Your task to perform on an android device: Open calendar and show me the second week of next month Image 0: 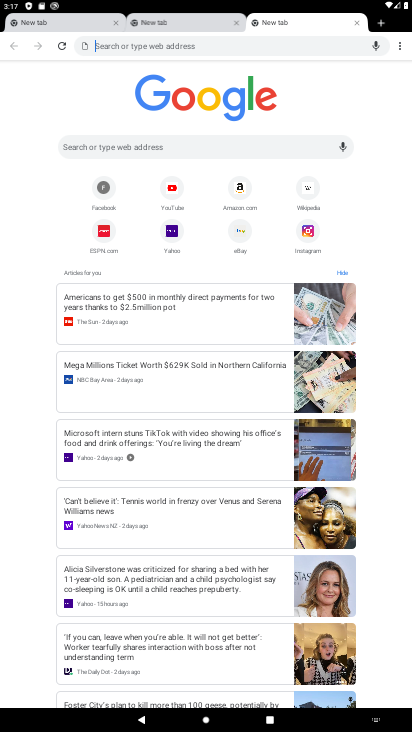
Step 0: press home button
Your task to perform on an android device: Open calendar and show me the second week of next month Image 1: 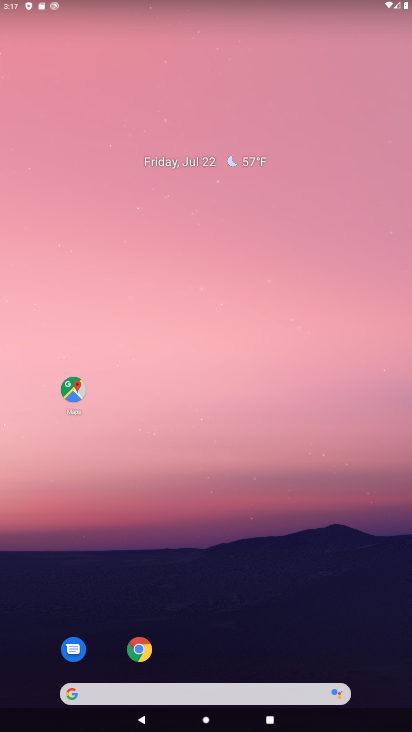
Step 1: click (274, 64)
Your task to perform on an android device: Open calendar and show me the second week of next month Image 2: 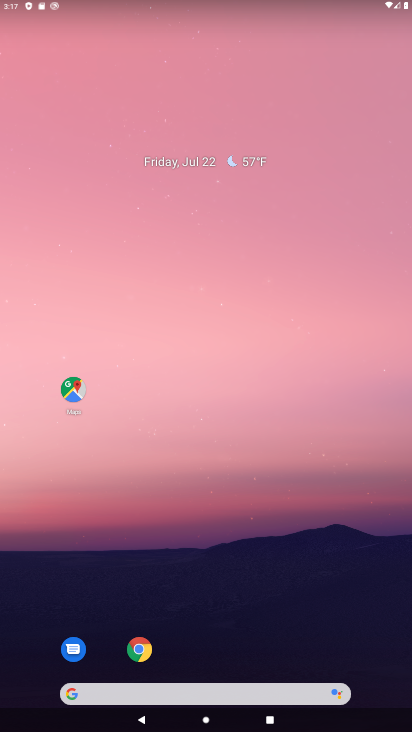
Step 2: drag from (39, 694) to (203, 115)
Your task to perform on an android device: Open calendar and show me the second week of next month Image 3: 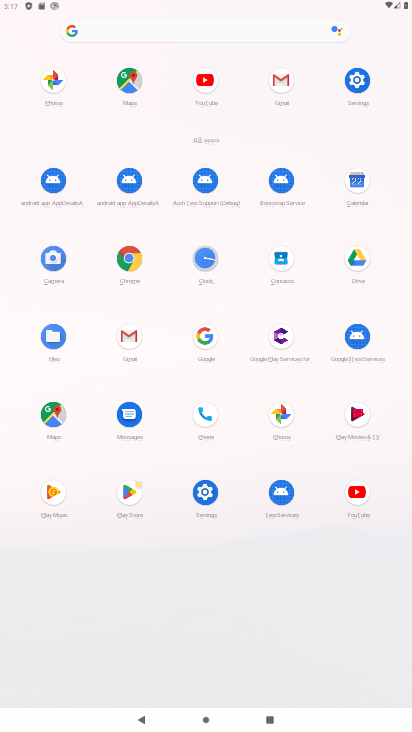
Step 3: click (358, 184)
Your task to perform on an android device: Open calendar and show me the second week of next month Image 4: 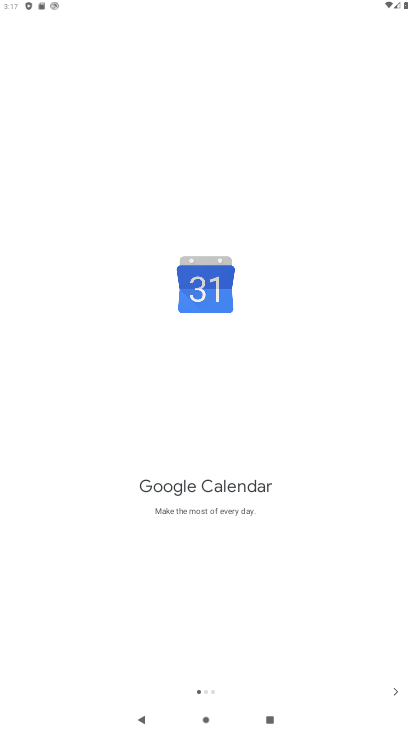
Step 4: click (396, 690)
Your task to perform on an android device: Open calendar and show me the second week of next month Image 5: 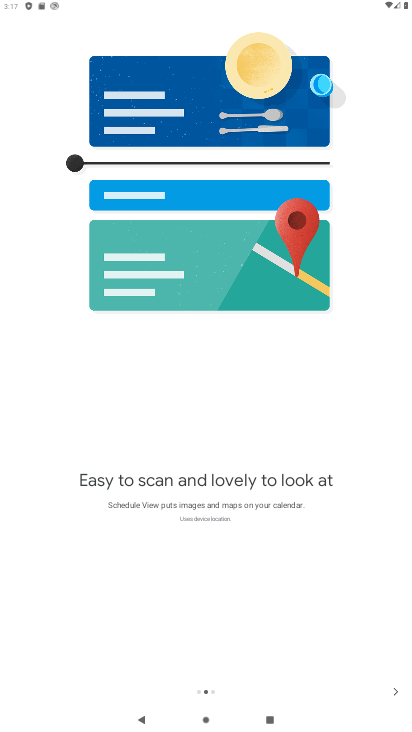
Step 5: click (388, 685)
Your task to perform on an android device: Open calendar and show me the second week of next month Image 6: 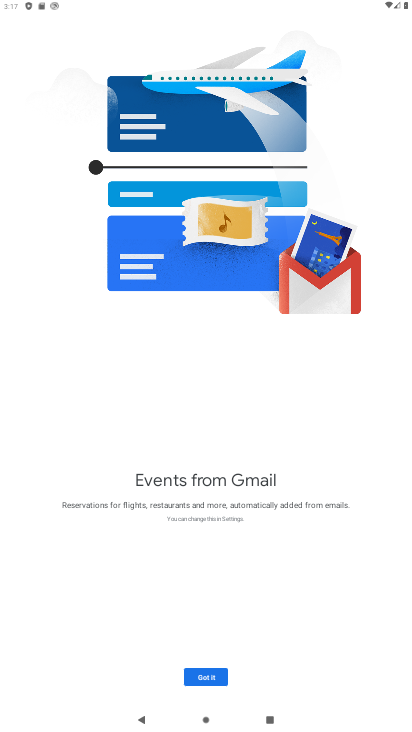
Step 6: click (189, 676)
Your task to perform on an android device: Open calendar and show me the second week of next month Image 7: 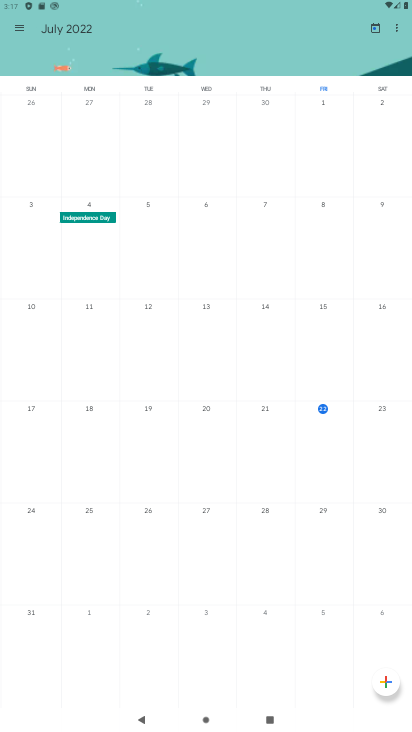
Step 7: drag from (25, 320) to (9, 378)
Your task to perform on an android device: Open calendar and show me the second week of next month Image 8: 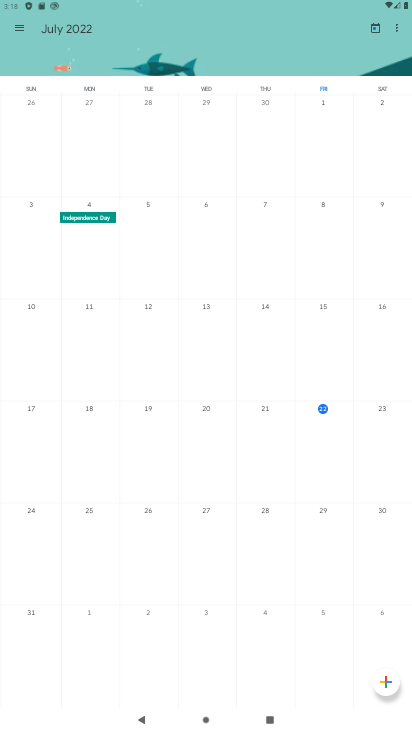
Step 8: drag from (0, 265) to (0, 405)
Your task to perform on an android device: Open calendar and show me the second week of next month Image 9: 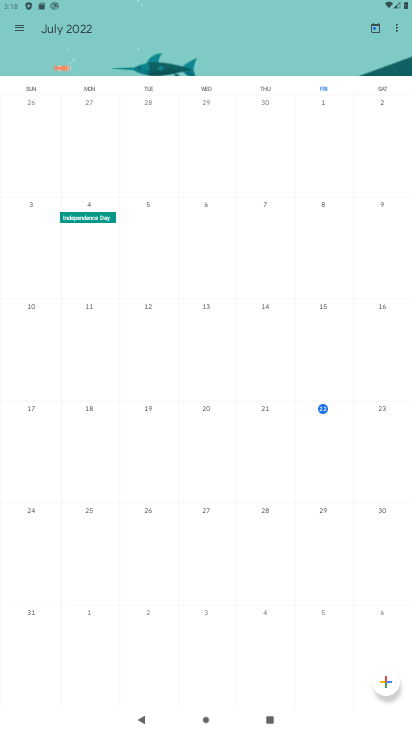
Step 9: click (8, 271)
Your task to perform on an android device: Open calendar and show me the second week of next month Image 10: 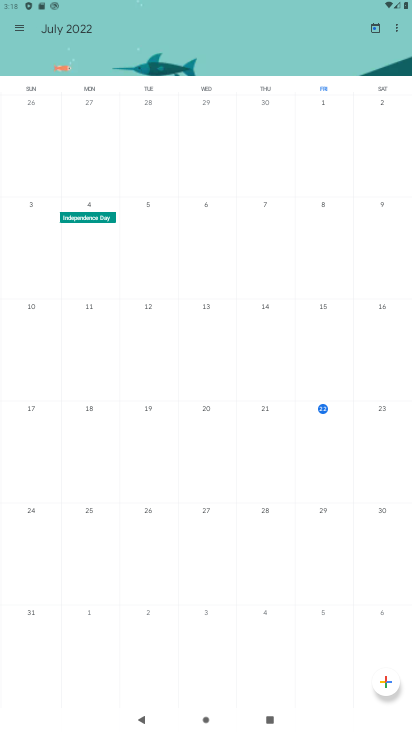
Step 10: drag from (314, 314) to (87, 353)
Your task to perform on an android device: Open calendar and show me the second week of next month Image 11: 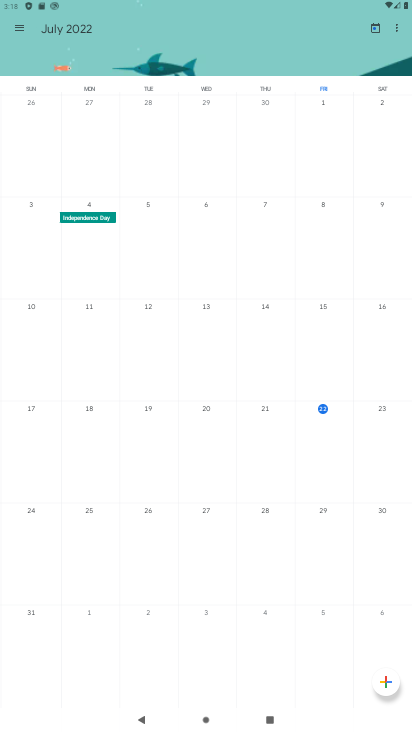
Step 11: drag from (396, 252) to (17, 434)
Your task to perform on an android device: Open calendar and show me the second week of next month Image 12: 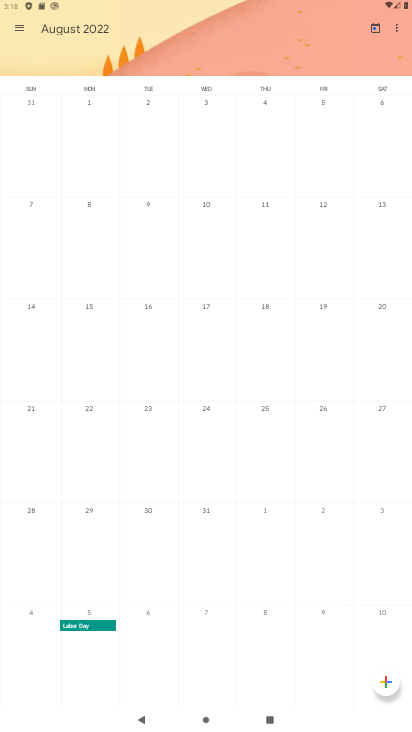
Step 12: click (88, 200)
Your task to perform on an android device: Open calendar and show me the second week of next month Image 13: 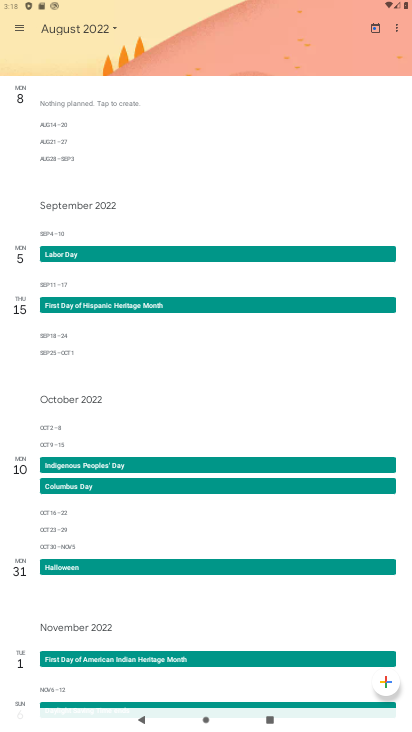
Step 13: task complete